Your task to perform on an android device: Open settings Image 0: 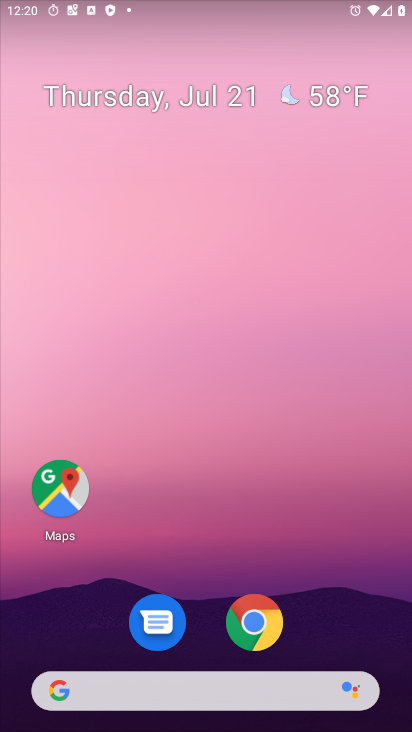
Step 0: drag from (59, 563) to (185, 247)
Your task to perform on an android device: Open settings Image 1: 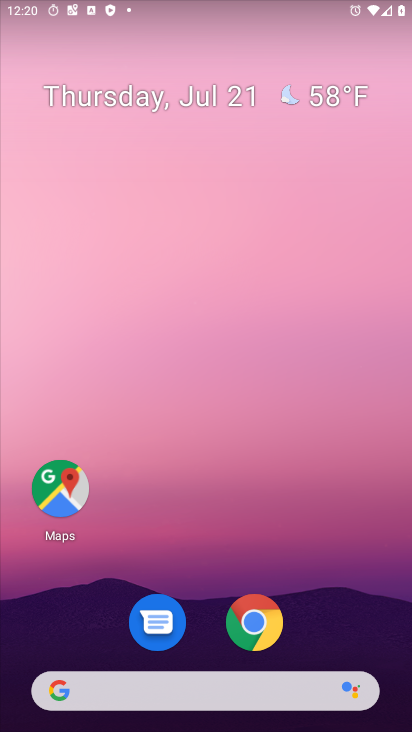
Step 1: drag from (108, 445) to (207, 143)
Your task to perform on an android device: Open settings Image 2: 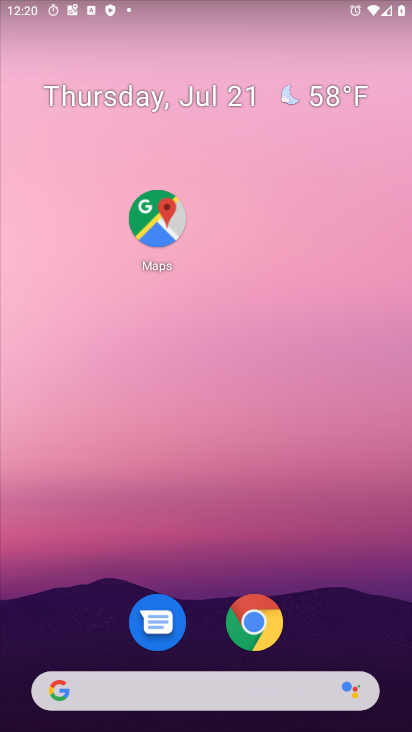
Step 2: drag from (65, 589) to (150, 308)
Your task to perform on an android device: Open settings Image 3: 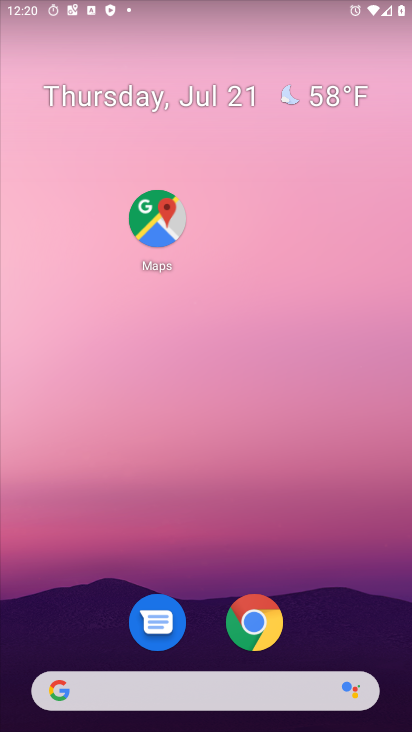
Step 3: drag from (12, 701) to (113, 225)
Your task to perform on an android device: Open settings Image 4: 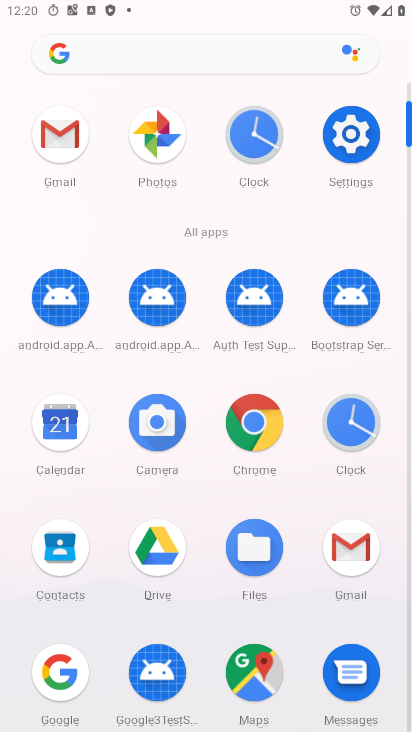
Step 4: click (331, 163)
Your task to perform on an android device: Open settings Image 5: 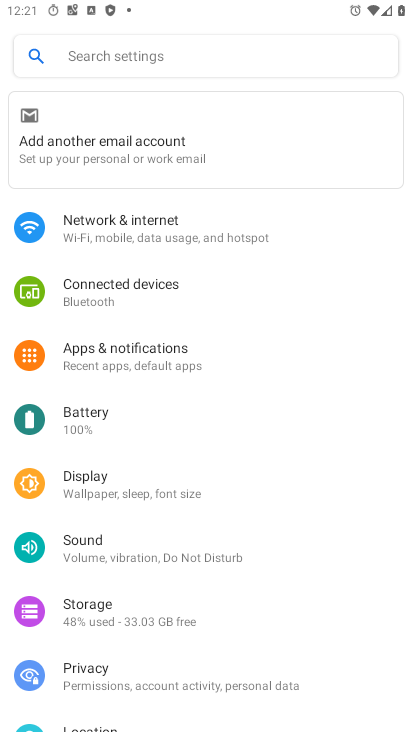
Step 5: task complete